Your task to perform on an android device: Open battery settings Image 0: 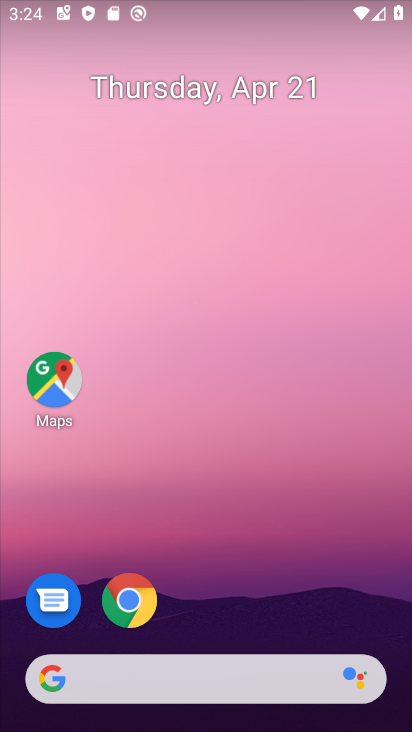
Step 0: drag from (220, 581) to (281, 15)
Your task to perform on an android device: Open battery settings Image 1: 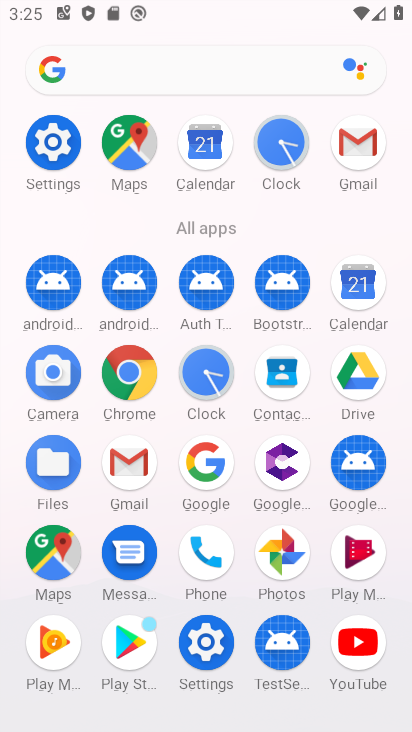
Step 1: click (55, 143)
Your task to perform on an android device: Open battery settings Image 2: 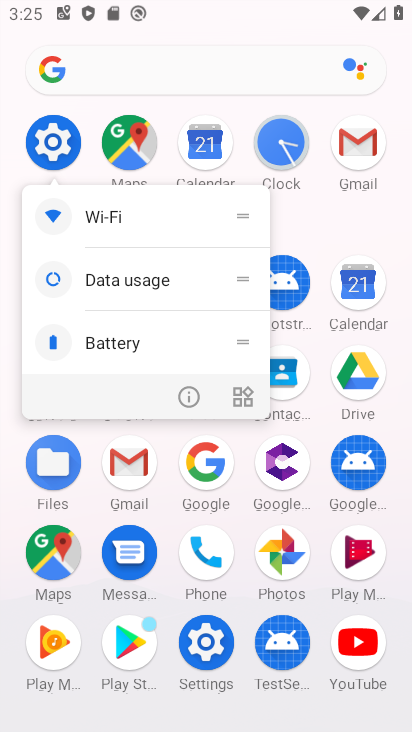
Step 2: click (55, 143)
Your task to perform on an android device: Open battery settings Image 3: 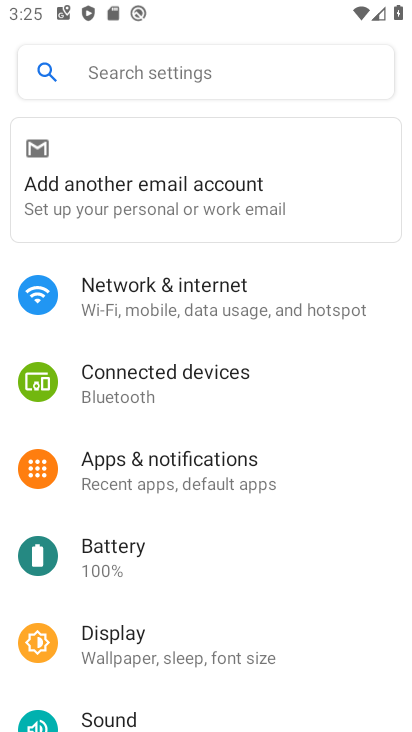
Step 3: click (123, 545)
Your task to perform on an android device: Open battery settings Image 4: 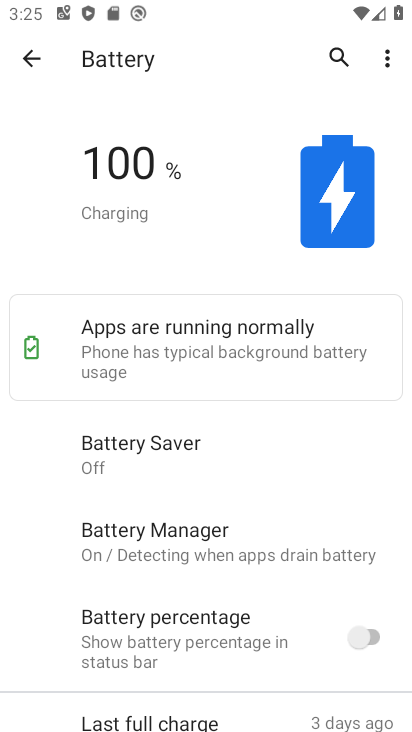
Step 4: task complete